Your task to perform on an android device: turn vacation reply on in the gmail app Image 0: 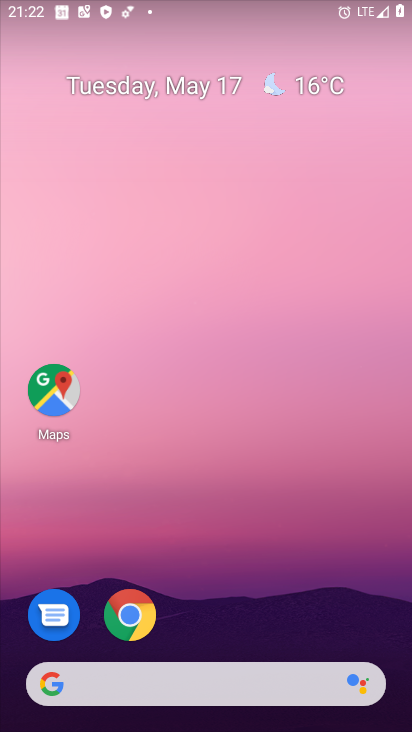
Step 0: drag from (271, 624) to (230, 46)
Your task to perform on an android device: turn vacation reply on in the gmail app Image 1: 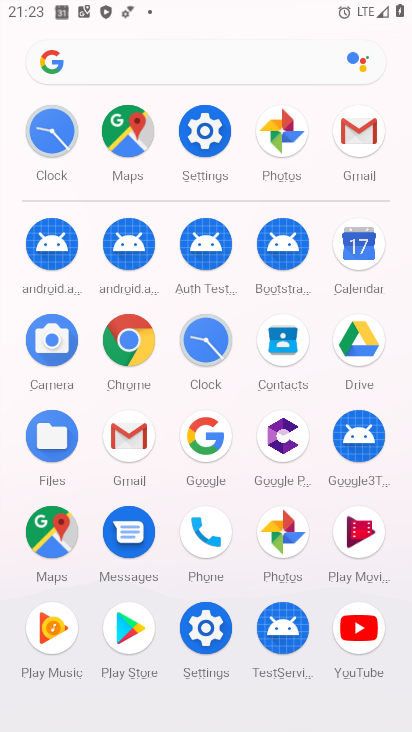
Step 1: click (119, 448)
Your task to perform on an android device: turn vacation reply on in the gmail app Image 2: 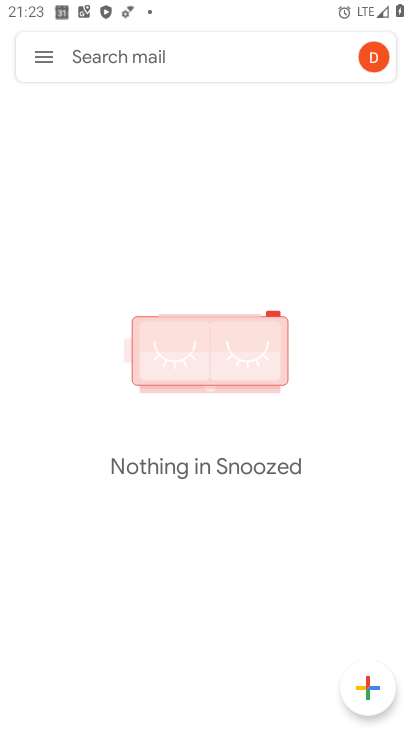
Step 2: click (38, 52)
Your task to perform on an android device: turn vacation reply on in the gmail app Image 3: 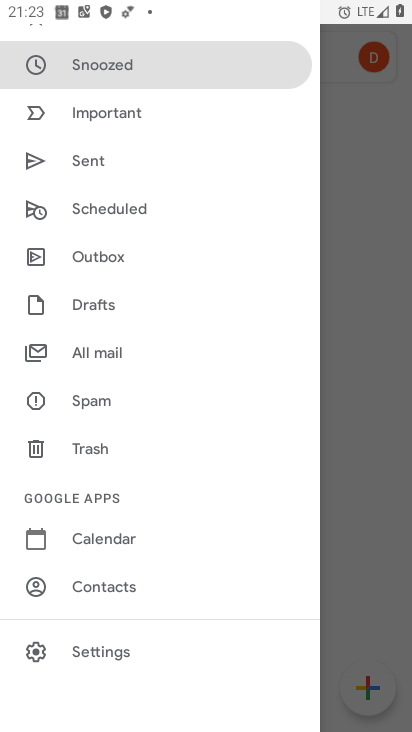
Step 3: click (114, 645)
Your task to perform on an android device: turn vacation reply on in the gmail app Image 4: 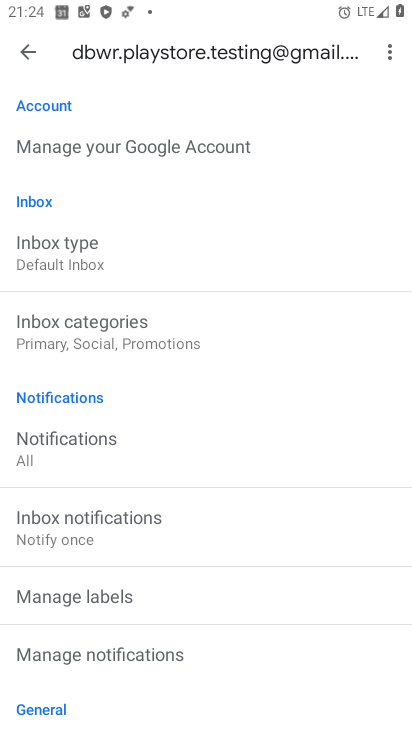
Step 4: task complete